Your task to perform on an android device: find snoozed emails in the gmail app Image 0: 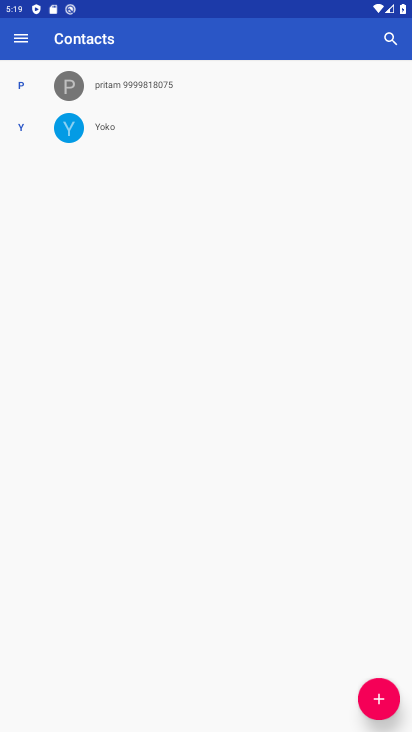
Step 0: press home button
Your task to perform on an android device: find snoozed emails in the gmail app Image 1: 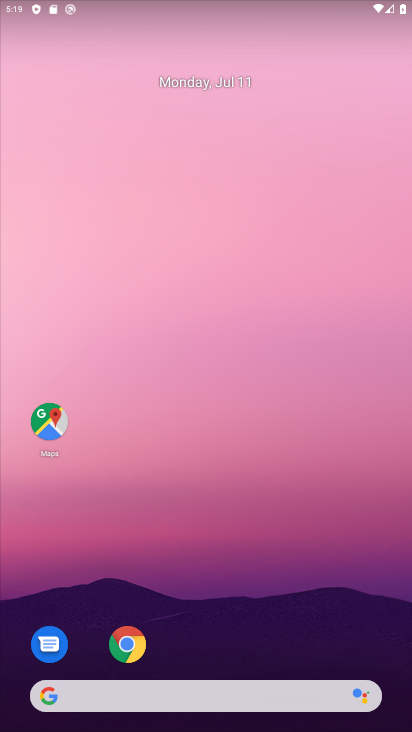
Step 1: drag from (281, 703) to (308, 66)
Your task to perform on an android device: find snoozed emails in the gmail app Image 2: 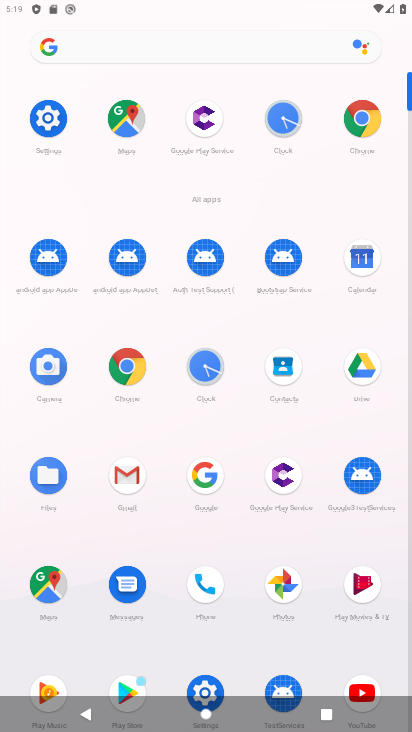
Step 2: click (132, 481)
Your task to perform on an android device: find snoozed emails in the gmail app Image 3: 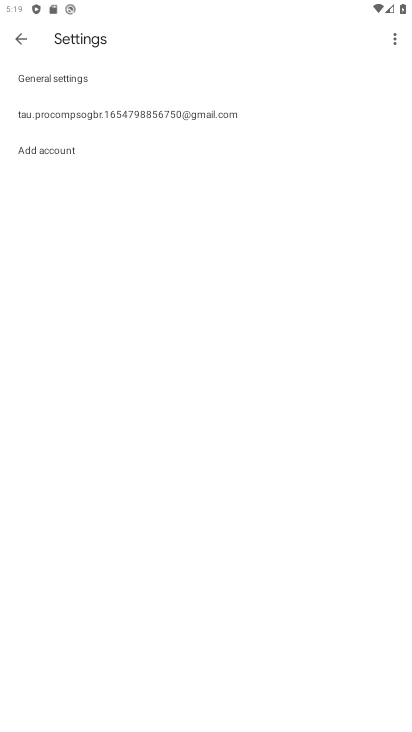
Step 3: press back button
Your task to perform on an android device: find snoozed emails in the gmail app Image 4: 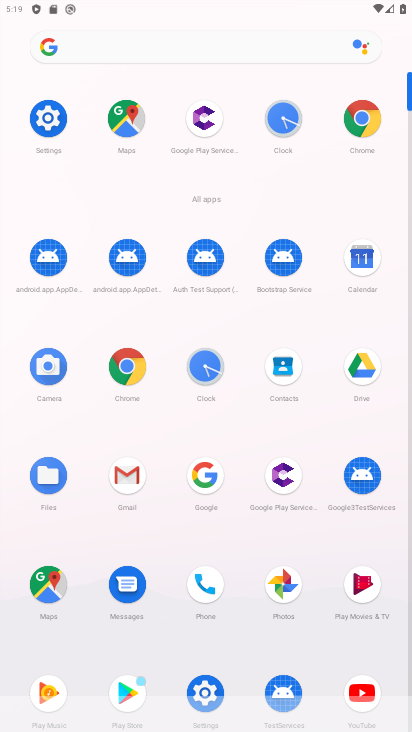
Step 4: click (118, 476)
Your task to perform on an android device: find snoozed emails in the gmail app Image 5: 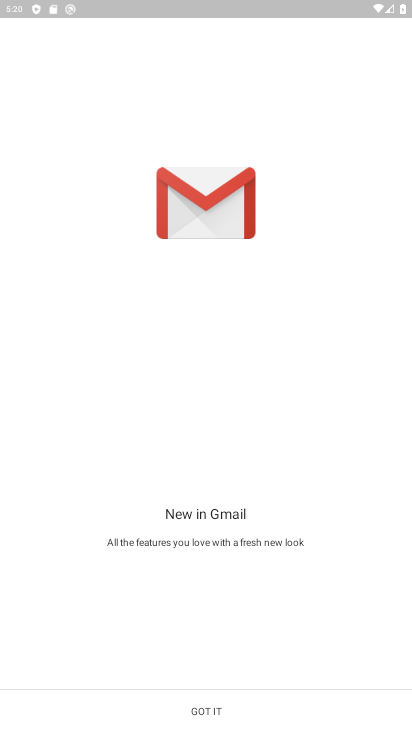
Step 5: click (263, 698)
Your task to perform on an android device: find snoozed emails in the gmail app Image 6: 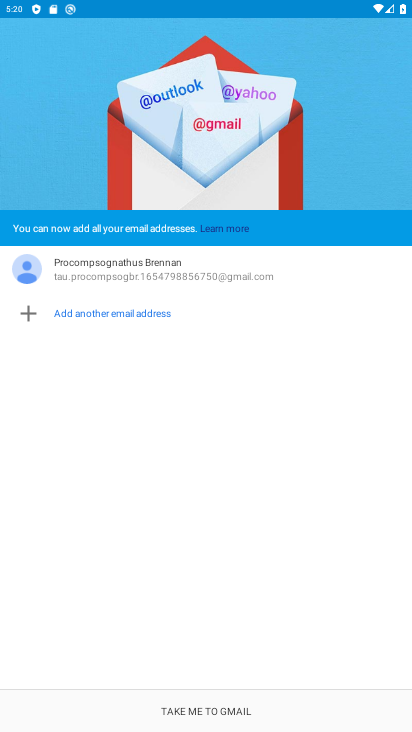
Step 6: click (209, 720)
Your task to perform on an android device: find snoozed emails in the gmail app Image 7: 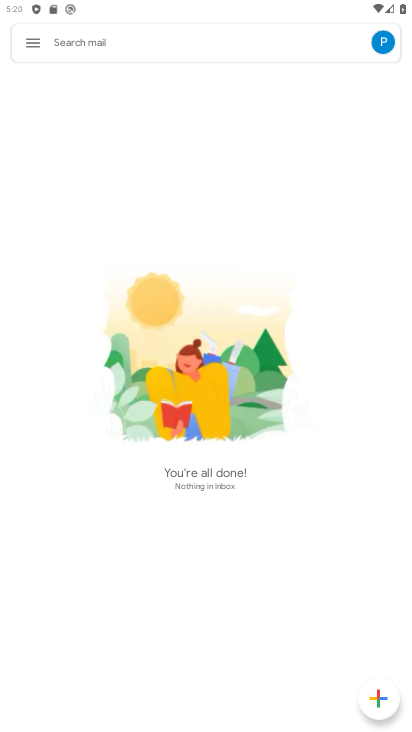
Step 7: click (24, 48)
Your task to perform on an android device: find snoozed emails in the gmail app Image 8: 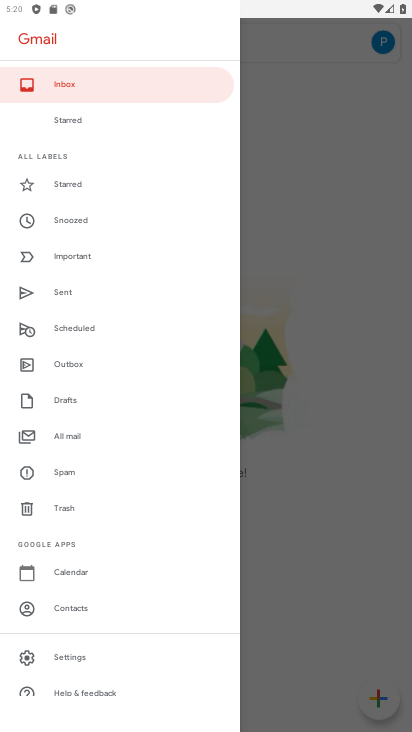
Step 8: click (71, 215)
Your task to perform on an android device: find snoozed emails in the gmail app Image 9: 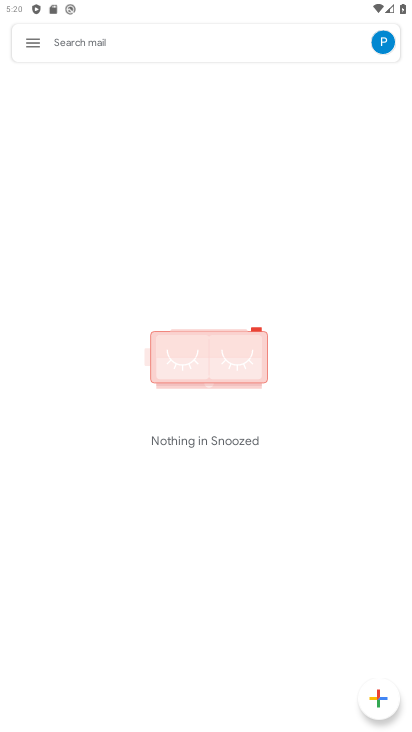
Step 9: task complete